Your task to perform on an android device: set the stopwatch Image 0: 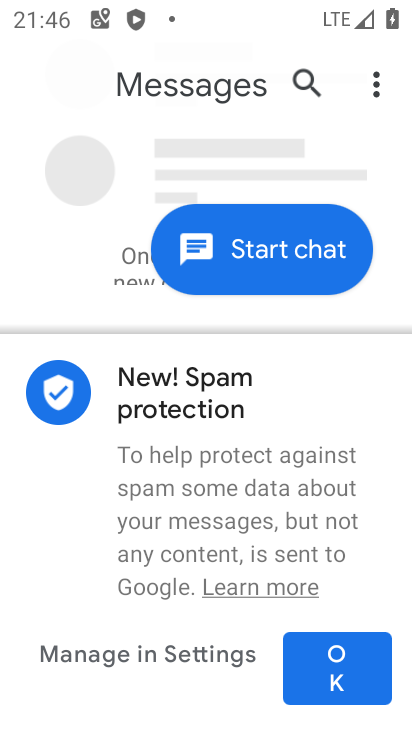
Step 0: press back button
Your task to perform on an android device: set the stopwatch Image 1: 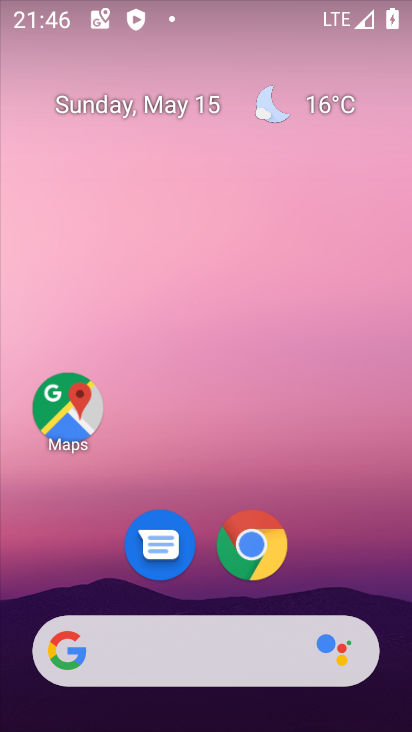
Step 1: drag from (341, 529) to (215, 74)
Your task to perform on an android device: set the stopwatch Image 2: 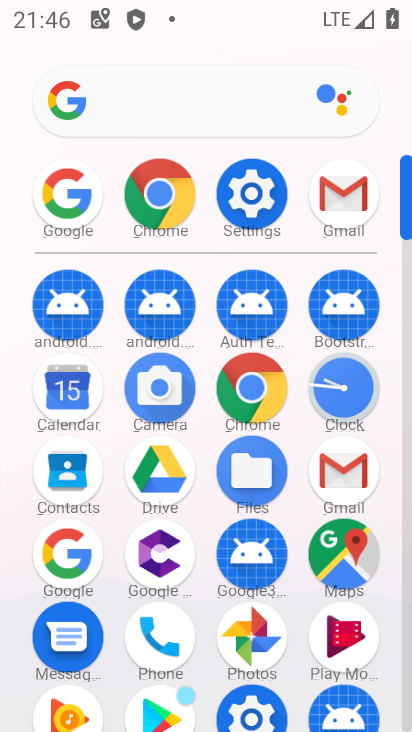
Step 2: click (344, 388)
Your task to perform on an android device: set the stopwatch Image 3: 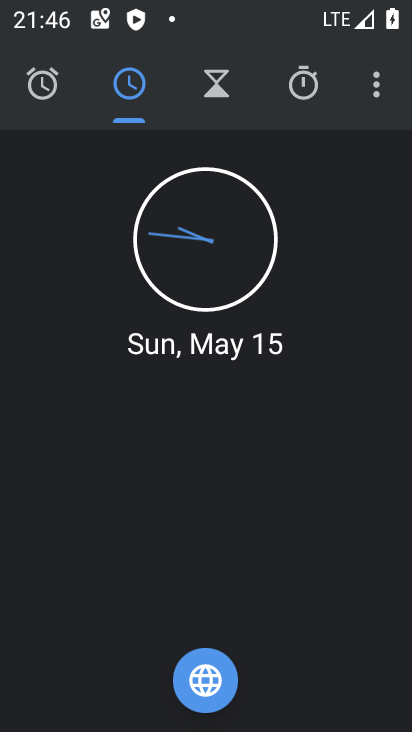
Step 3: click (301, 92)
Your task to perform on an android device: set the stopwatch Image 4: 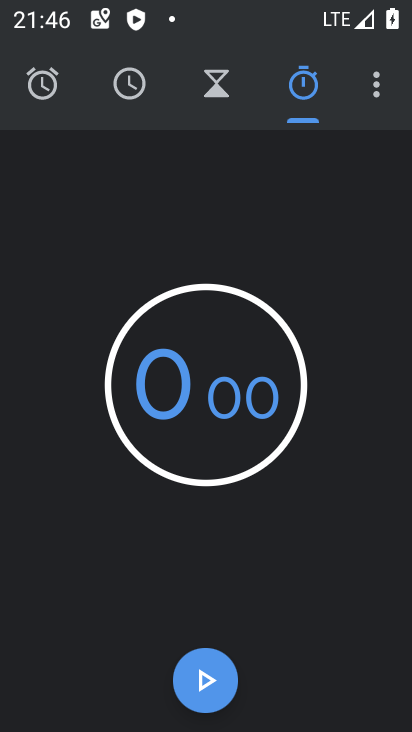
Step 4: click (207, 685)
Your task to perform on an android device: set the stopwatch Image 5: 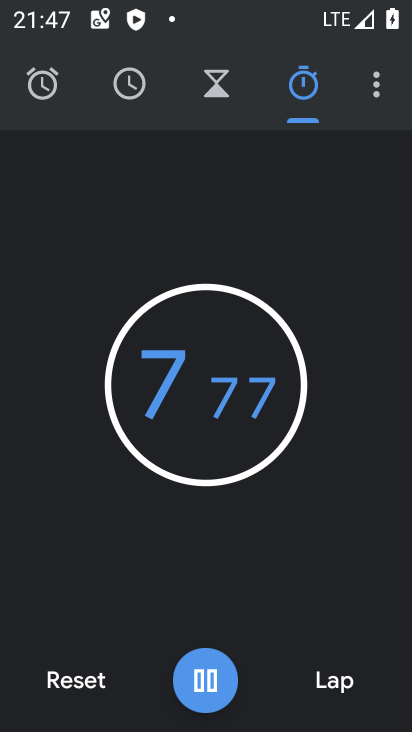
Step 5: click (204, 681)
Your task to perform on an android device: set the stopwatch Image 6: 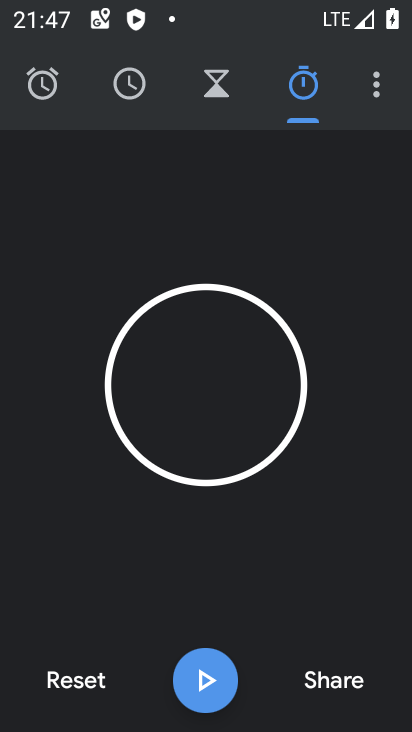
Step 6: task complete